Your task to perform on an android device: turn on javascript in the chrome app Image 0: 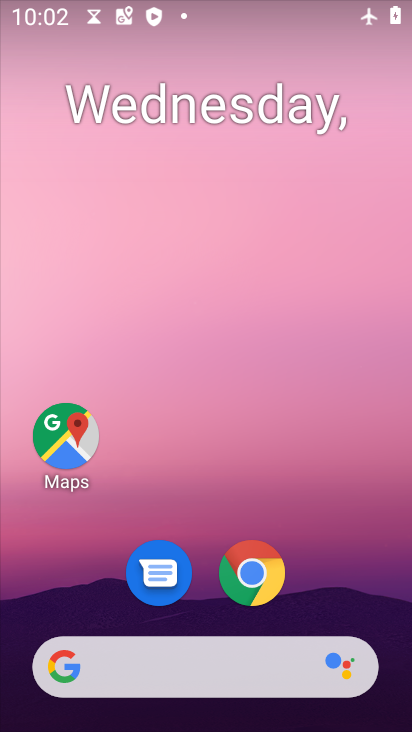
Step 0: click (233, 550)
Your task to perform on an android device: turn on javascript in the chrome app Image 1: 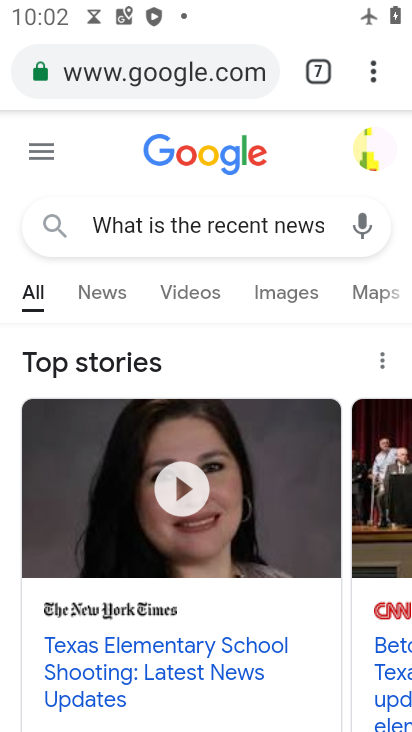
Step 1: click (365, 65)
Your task to perform on an android device: turn on javascript in the chrome app Image 2: 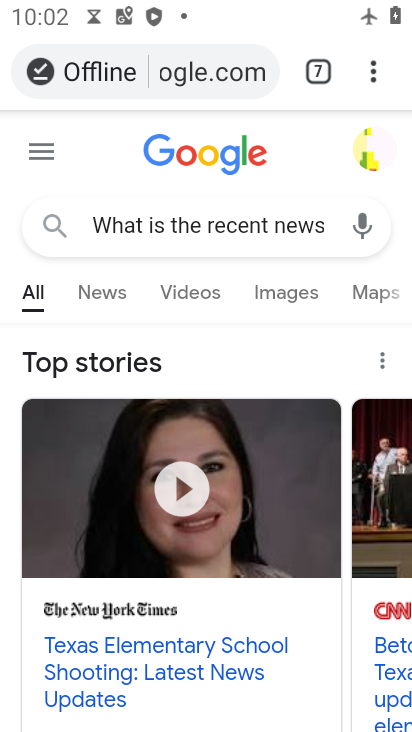
Step 2: click (373, 71)
Your task to perform on an android device: turn on javascript in the chrome app Image 3: 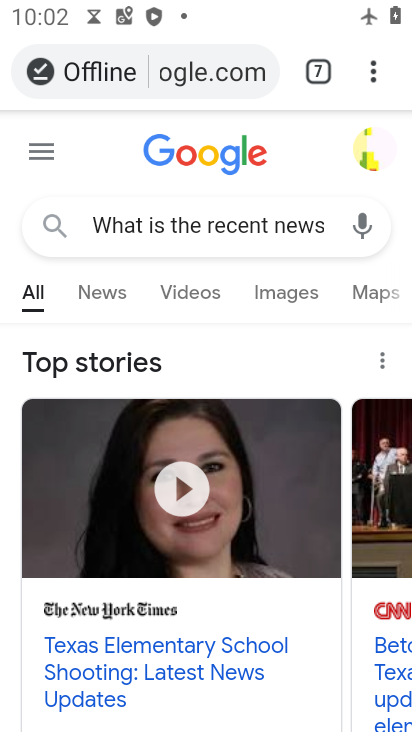
Step 3: click (362, 68)
Your task to perform on an android device: turn on javascript in the chrome app Image 4: 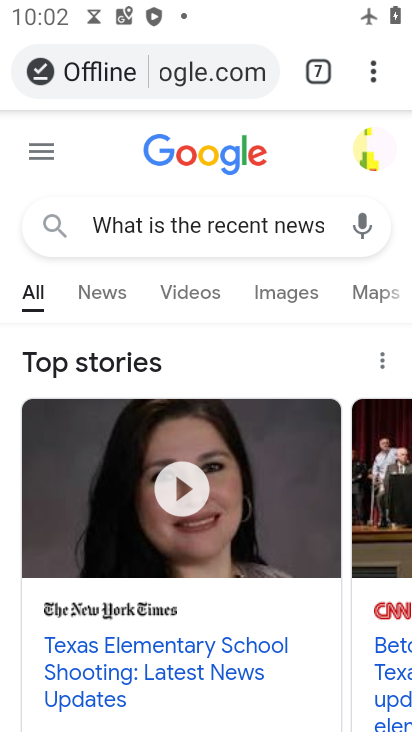
Step 4: click (371, 78)
Your task to perform on an android device: turn on javascript in the chrome app Image 5: 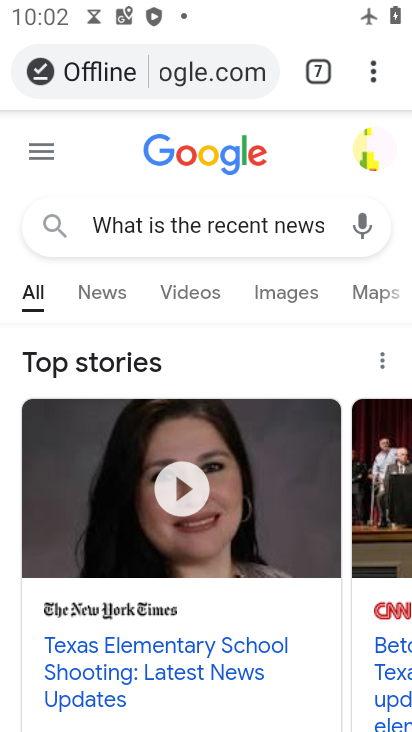
Step 5: click (375, 76)
Your task to perform on an android device: turn on javascript in the chrome app Image 6: 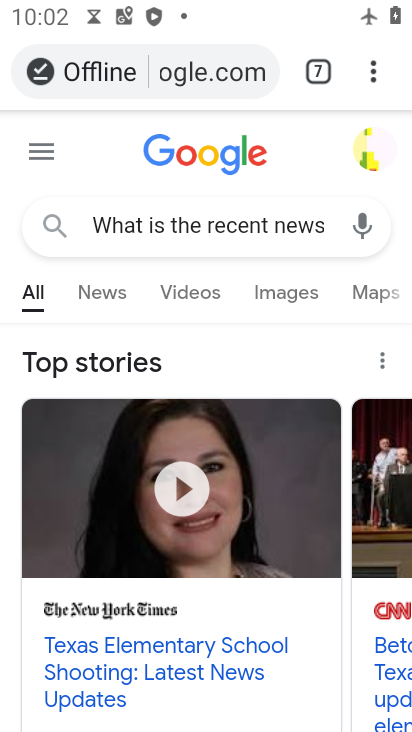
Step 6: click (371, 69)
Your task to perform on an android device: turn on javascript in the chrome app Image 7: 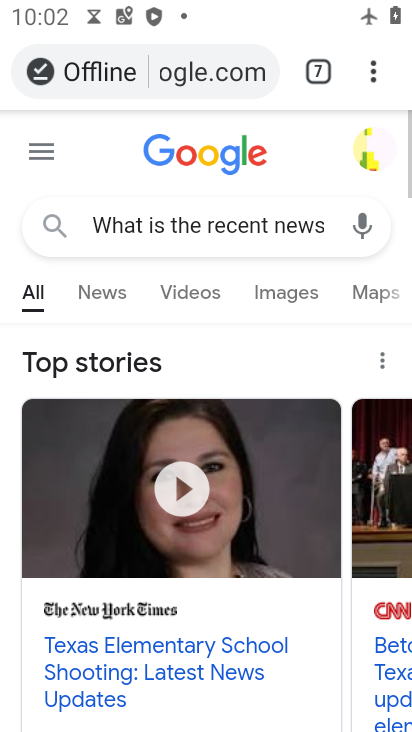
Step 7: click (373, 68)
Your task to perform on an android device: turn on javascript in the chrome app Image 8: 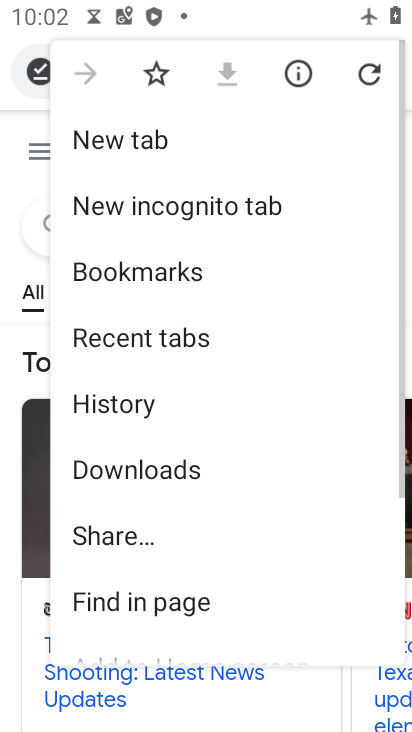
Step 8: drag from (228, 530) to (244, 181)
Your task to perform on an android device: turn on javascript in the chrome app Image 9: 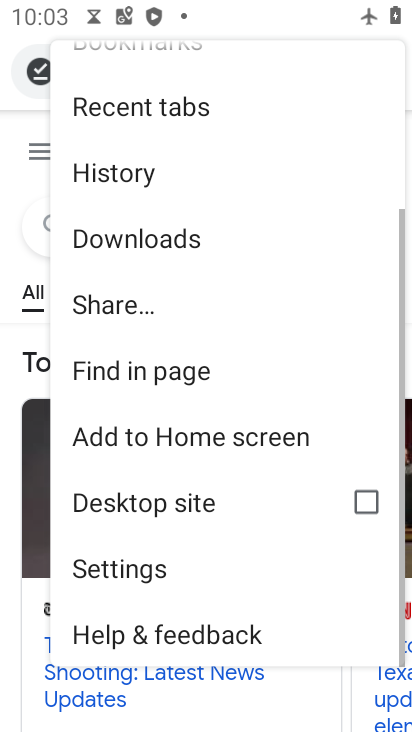
Step 9: click (125, 560)
Your task to perform on an android device: turn on javascript in the chrome app Image 10: 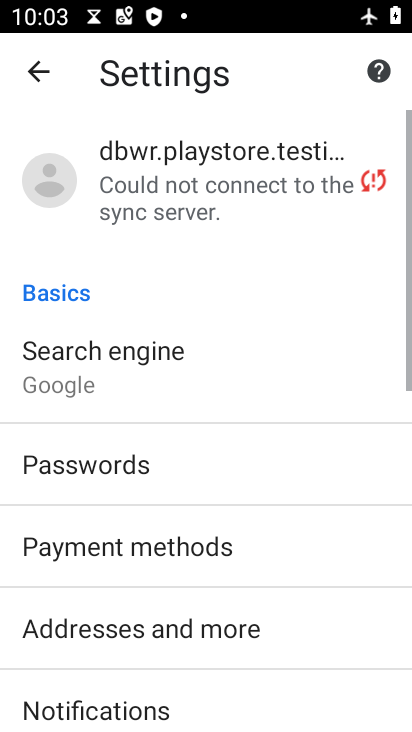
Step 10: drag from (230, 549) to (240, 284)
Your task to perform on an android device: turn on javascript in the chrome app Image 11: 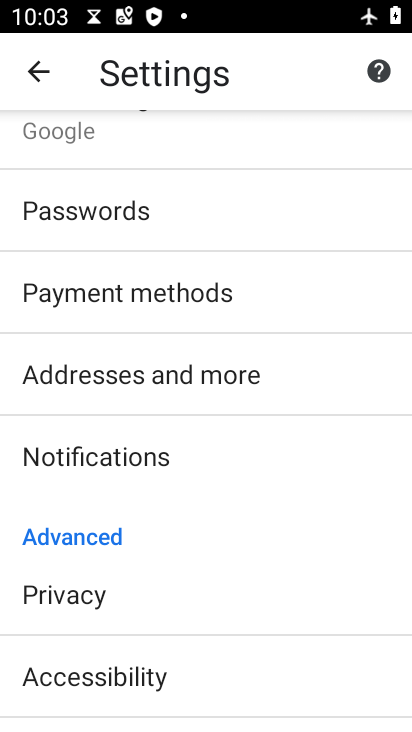
Step 11: drag from (167, 583) to (251, 258)
Your task to perform on an android device: turn on javascript in the chrome app Image 12: 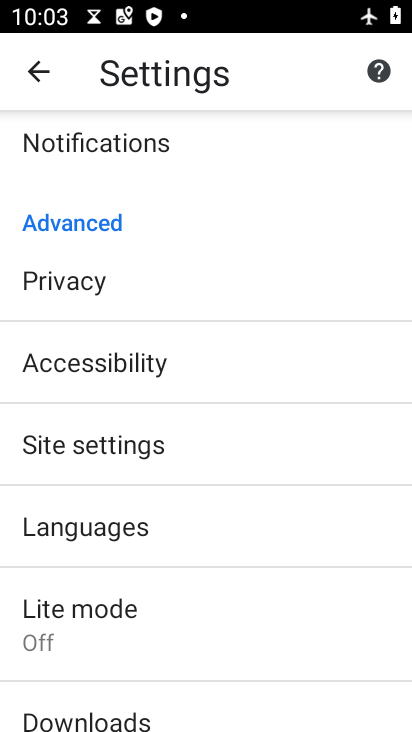
Step 12: click (152, 438)
Your task to perform on an android device: turn on javascript in the chrome app Image 13: 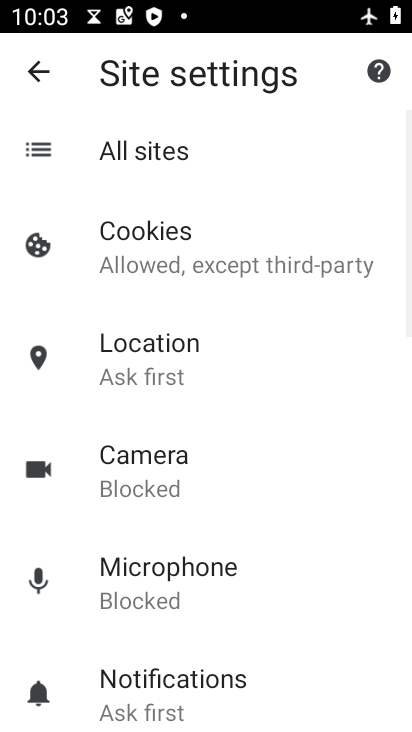
Step 13: drag from (243, 556) to (224, 213)
Your task to perform on an android device: turn on javascript in the chrome app Image 14: 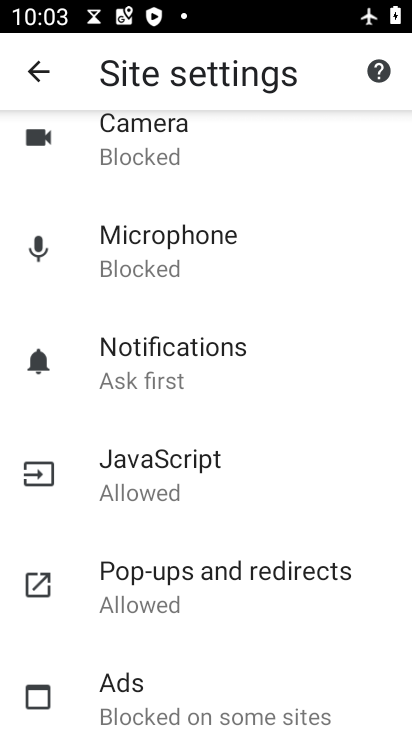
Step 14: click (160, 456)
Your task to perform on an android device: turn on javascript in the chrome app Image 15: 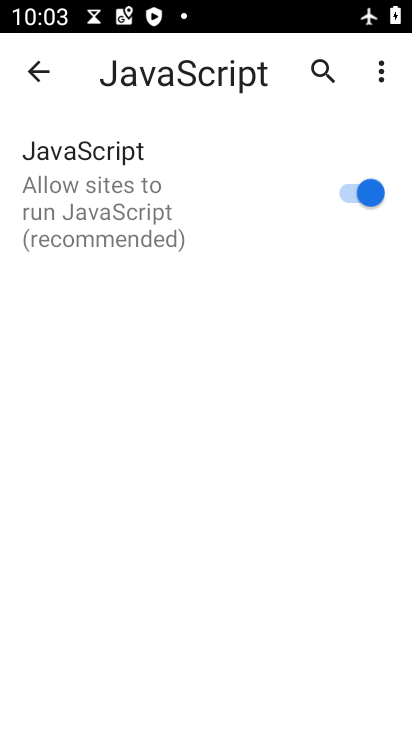
Step 15: task complete